Your task to perform on an android device: turn off smart reply in the gmail app Image 0: 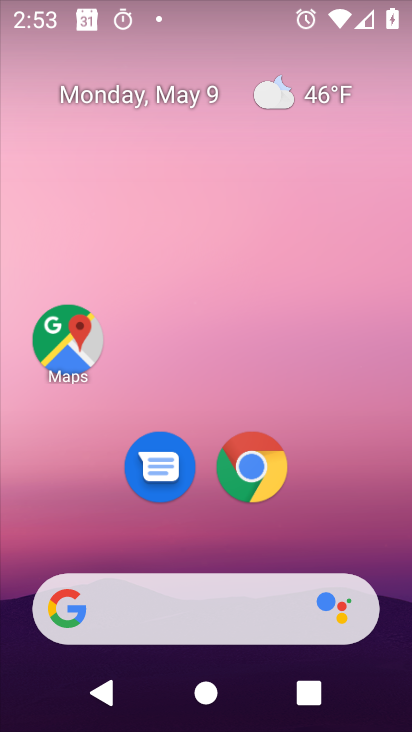
Step 0: drag from (327, 552) to (276, 89)
Your task to perform on an android device: turn off smart reply in the gmail app Image 1: 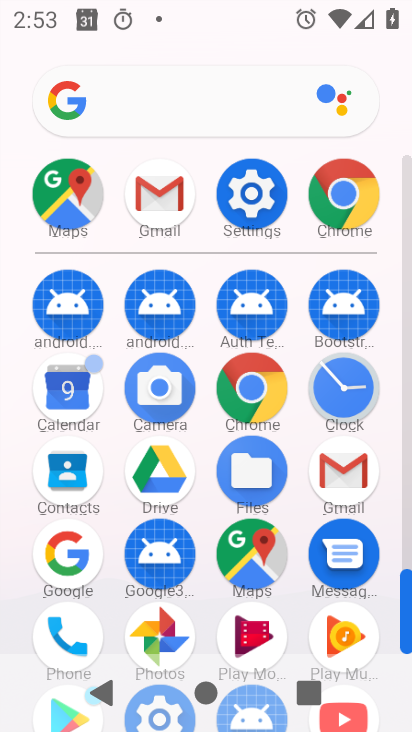
Step 1: click (164, 201)
Your task to perform on an android device: turn off smart reply in the gmail app Image 2: 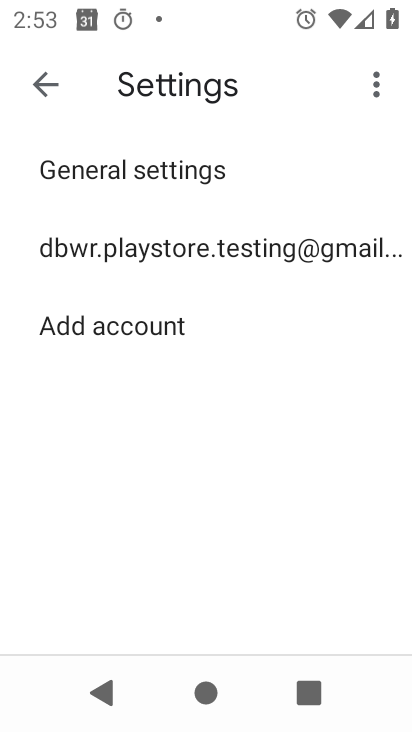
Step 2: click (34, 85)
Your task to perform on an android device: turn off smart reply in the gmail app Image 3: 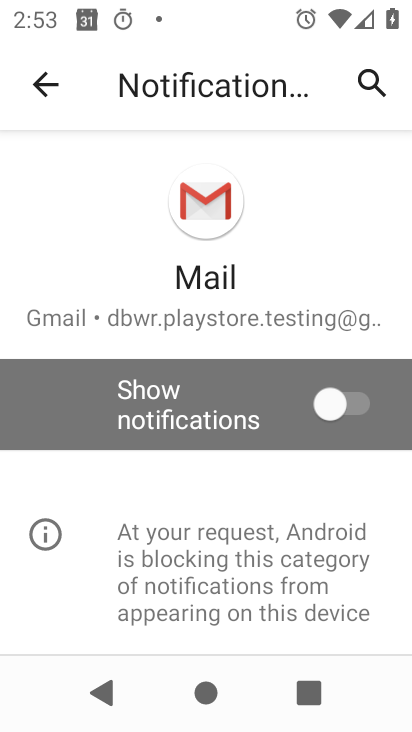
Step 3: click (44, 86)
Your task to perform on an android device: turn off smart reply in the gmail app Image 4: 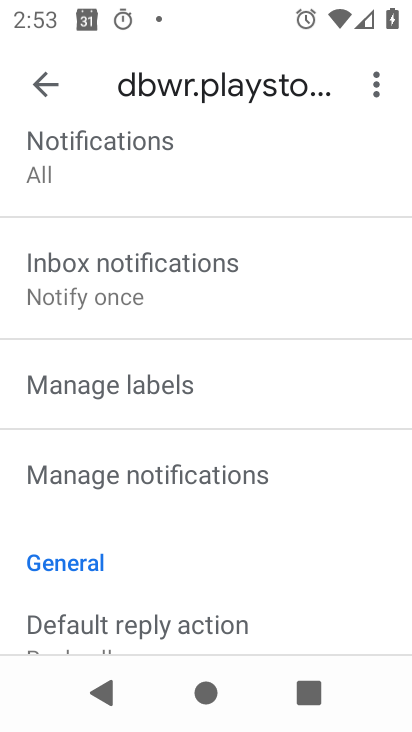
Step 4: drag from (205, 652) to (226, 142)
Your task to perform on an android device: turn off smart reply in the gmail app Image 5: 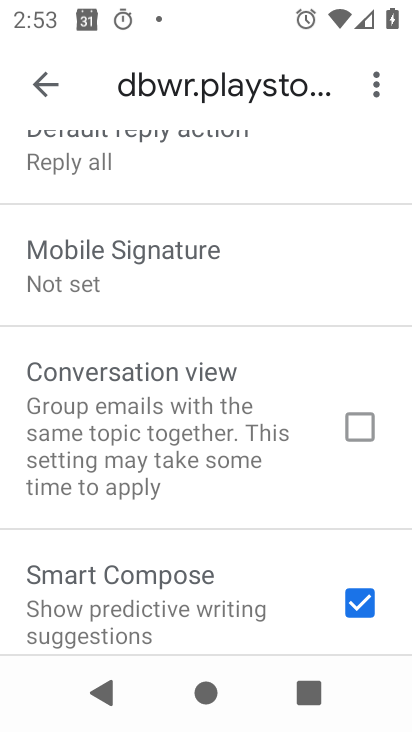
Step 5: drag from (241, 588) to (260, 225)
Your task to perform on an android device: turn off smart reply in the gmail app Image 6: 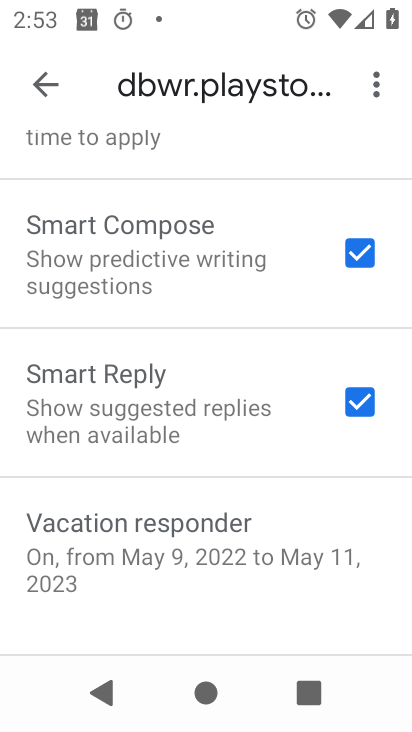
Step 6: click (350, 403)
Your task to perform on an android device: turn off smart reply in the gmail app Image 7: 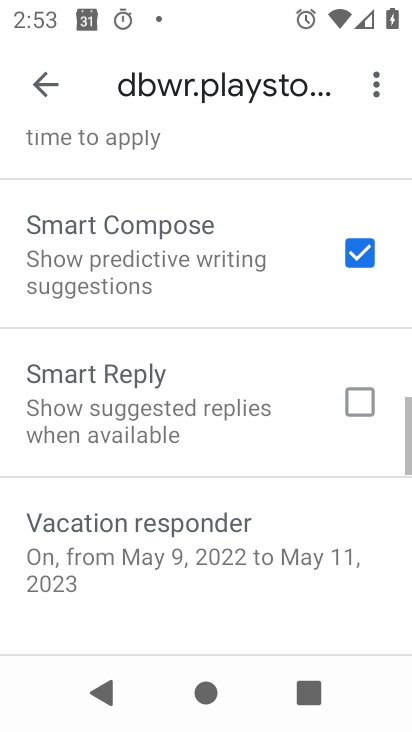
Step 7: task complete